Your task to perform on an android device: Open sound settings Image 0: 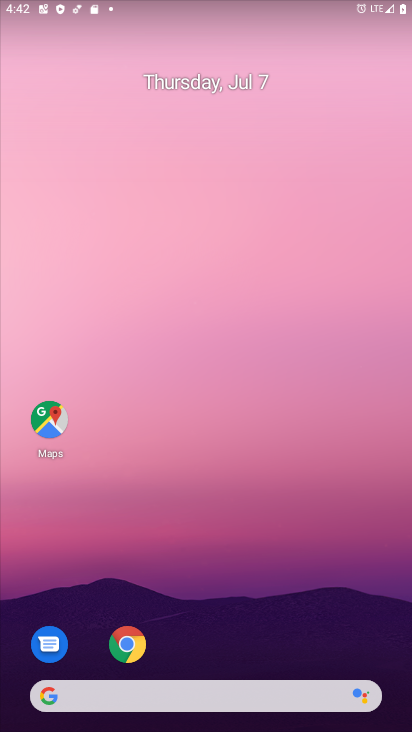
Step 0: drag from (228, 639) to (217, 133)
Your task to perform on an android device: Open sound settings Image 1: 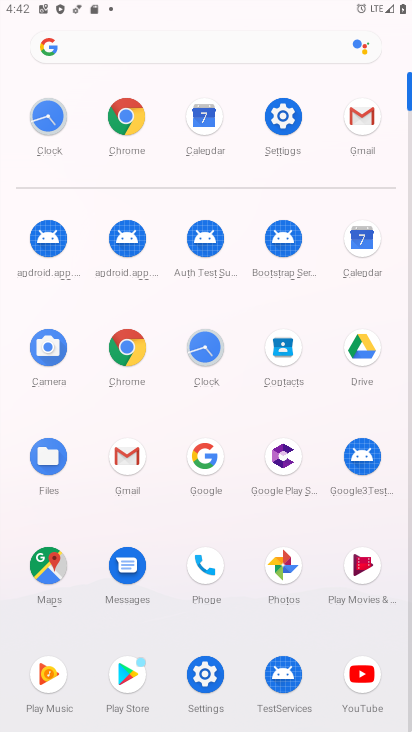
Step 1: click (283, 114)
Your task to perform on an android device: Open sound settings Image 2: 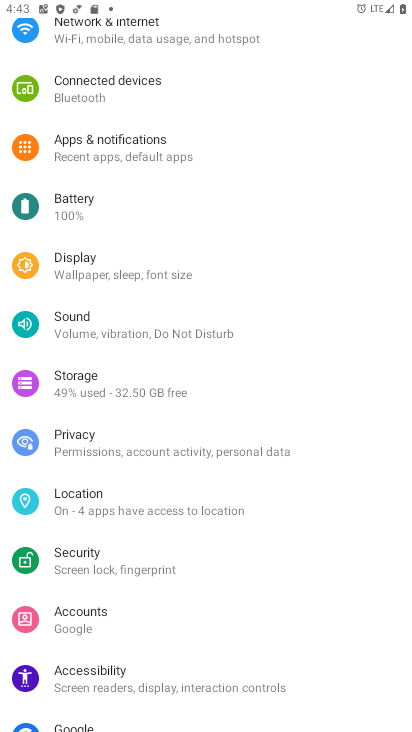
Step 2: drag from (183, 125) to (183, 247)
Your task to perform on an android device: Open sound settings Image 3: 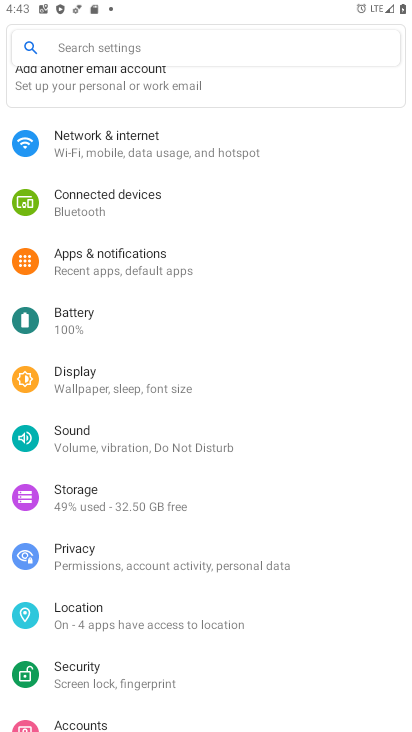
Step 3: drag from (118, 351) to (142, 308)
Your task to perform on an android device: Open sound settings Image 4: 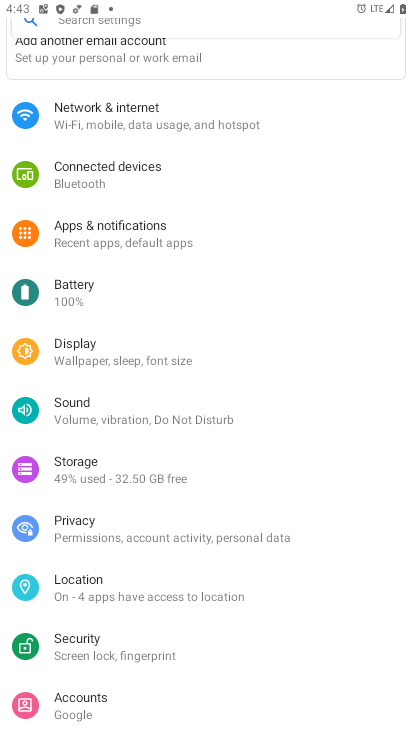
Step 4: click (106, 411)
Your task to perform on an android device: Open sound settings Image 5: 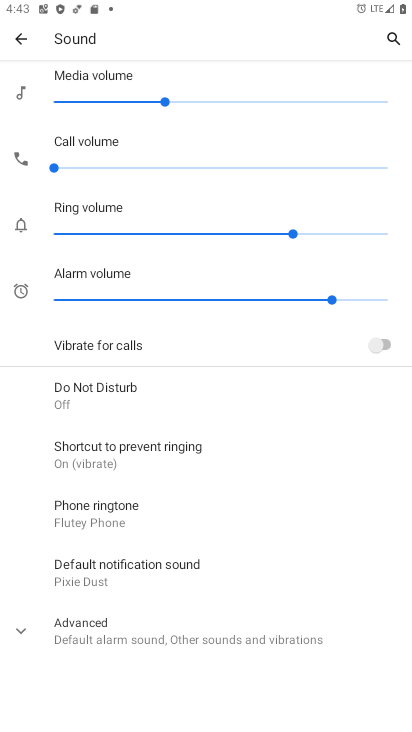
Step 5: task complete